Your task to perform on an android device: Show me recent news Image 0: 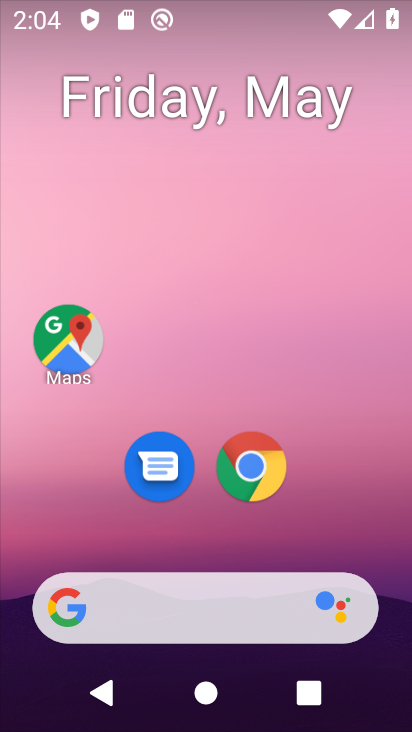
Step 0: click (64, 356)
Your task to perform on an android device: Show me recent news Image 1: 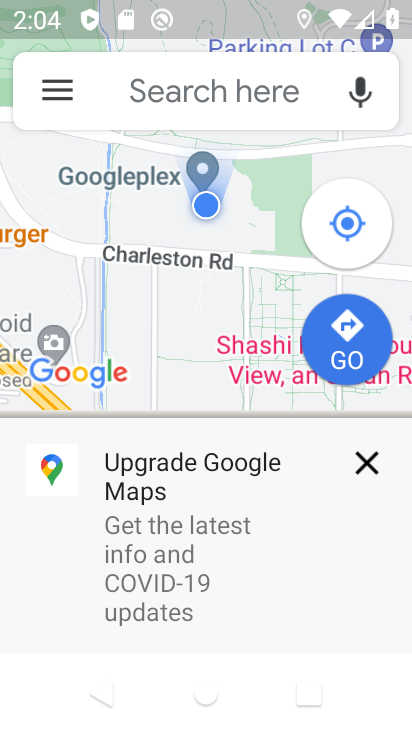
Step 1: task complete